Your task to perform on an android device: open app "DuckDuckGo Privacy Browser" (install if not already installed) Image 0: 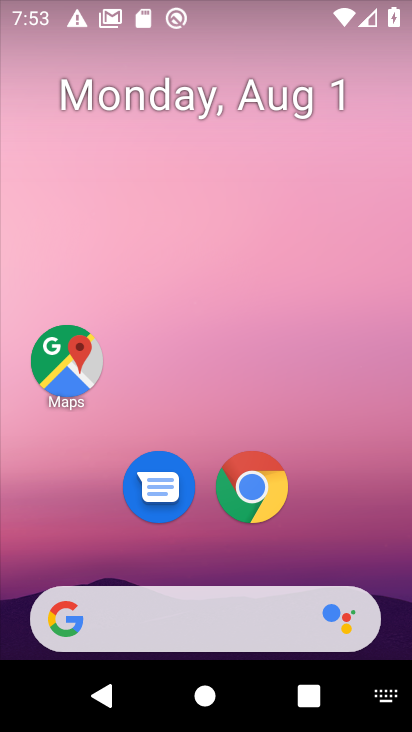
Step 0: press home button
Your task to perform on an android device: open app "DuckDuckGo Privacy Browser" (install if not already installed) Image 1: 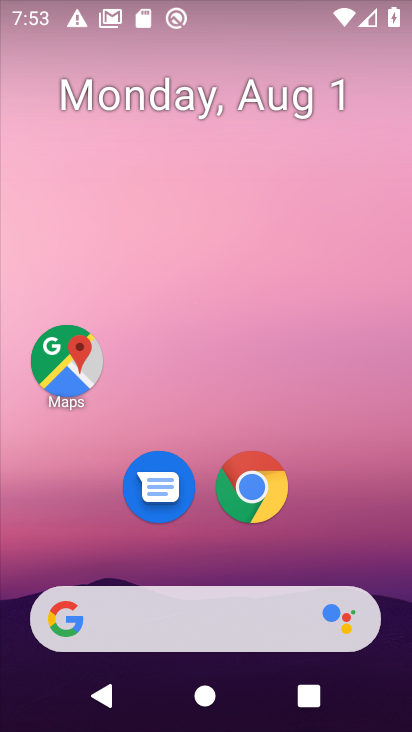
Step 1: drag from (341, 283) to (343, 85)
Your task to perform on an android device: open app "DuckDuckGo Privacy Browser" (install if not already installed) Image 2: 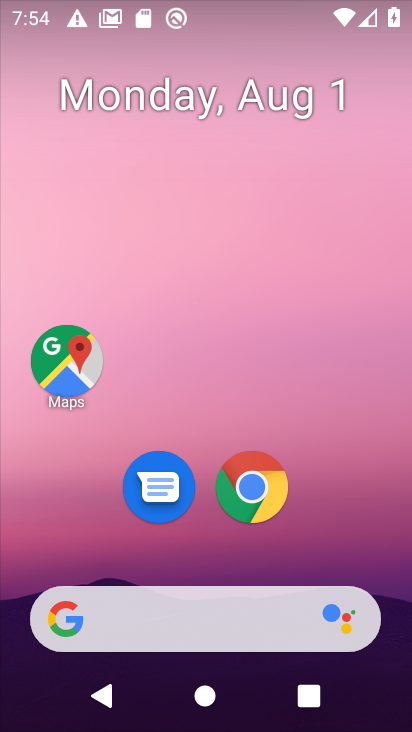
Step 2: drag from (361, 520) to (341, 38)
Your task to perform on an android device: open app "DuckDuckGo Privacy Browser" (install if not already installed) Image 3: 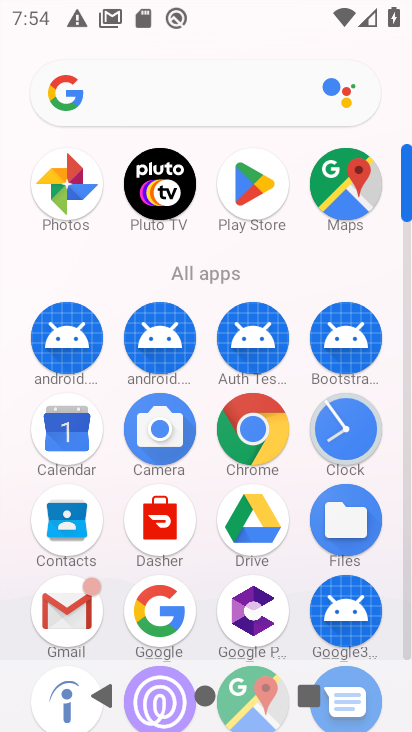
Step 3: click (253, 184)
Your task to perform on an android device: open app "DuckDuckGo Privacy Browser" (install if not already installed) Image 4: 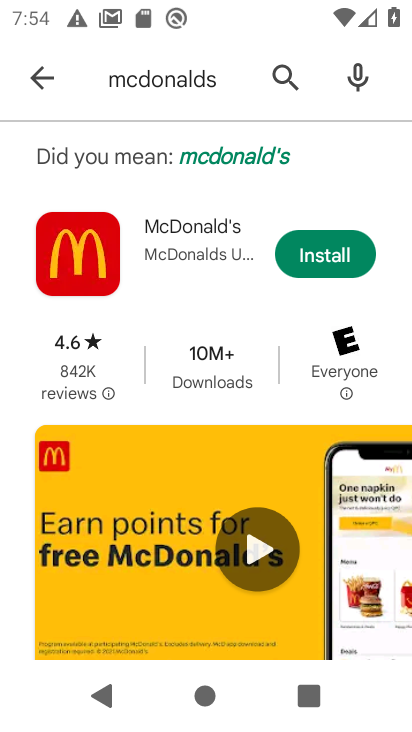
Step 4: click (289, 79)
Your task to perform on an android device: open app "DuckDuckGo Privacy Browser" (install if not already installed) Image 5: 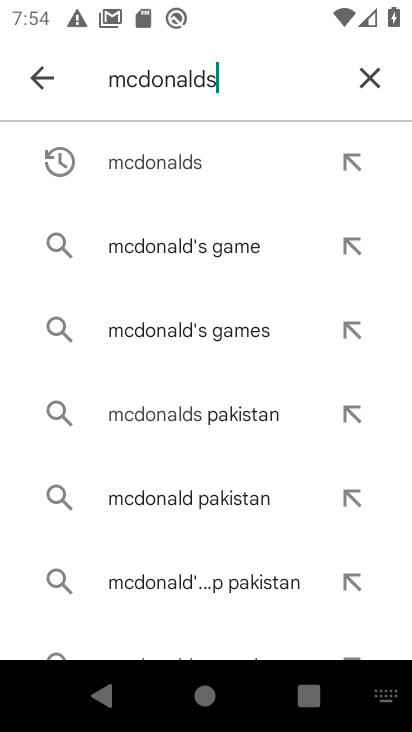
Step 5: click (369, 81)
Your task to perform on an android device: open app "DuckDuckGo Privacy Browser" (install if not already installed) Image 6: 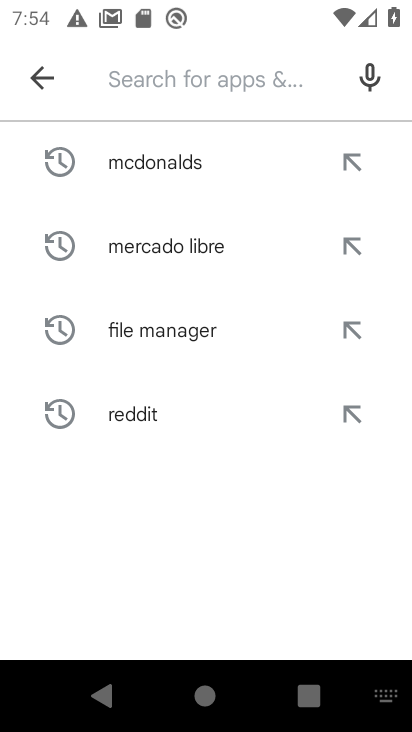
Step 6: type "DuckDuckGo Privacy Browser"
Your task to perform on an android device: open app "DuckDuckGo Privacy Browser" (install if not already installed) Image 7: 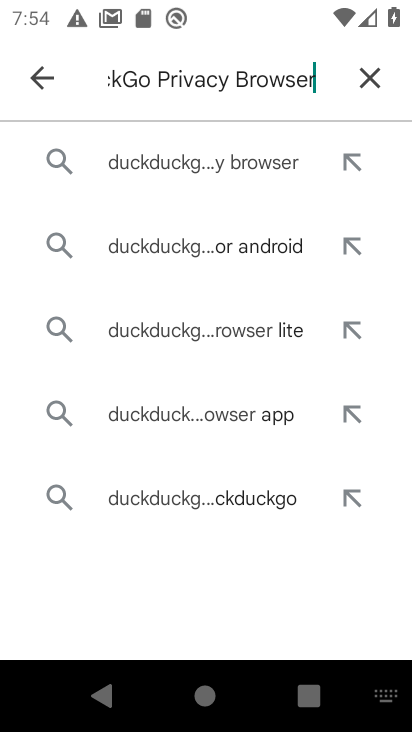
Step 7: click (233, 172)
Your task to perform on an android device: open app "DuckDuckGo Privacy Browser" (install if not already installed) Image 8: 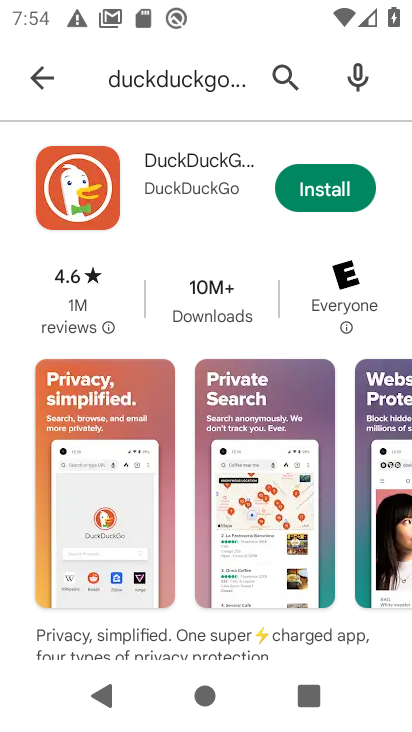
Step 8: click (323, 191)
Your task to perform on an android device: open app "DuckDuckGo Privacy Browser" (install if not already installed) Image 9: 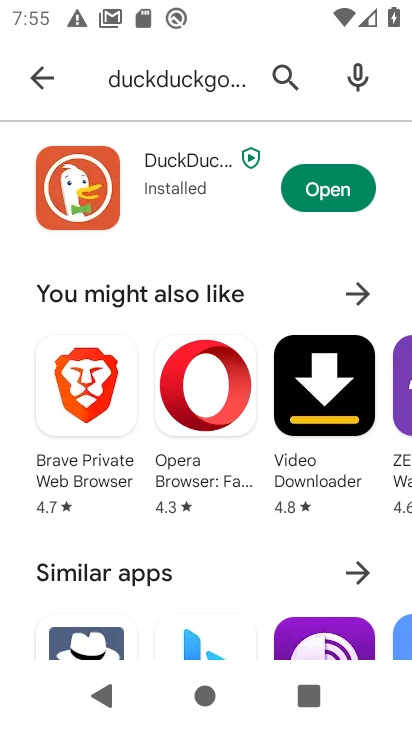
Step 9: click (344, 192)
Your task to perform on an android device: open app "DuckDuckGo Privacy Browser" (install if not already installed) Image 10: 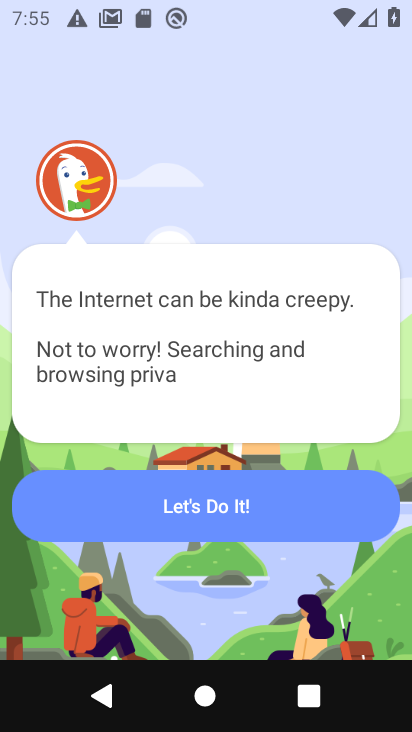
Step 10: task complete